Your task to perform on an android device: Go to wifi settings Image 0: 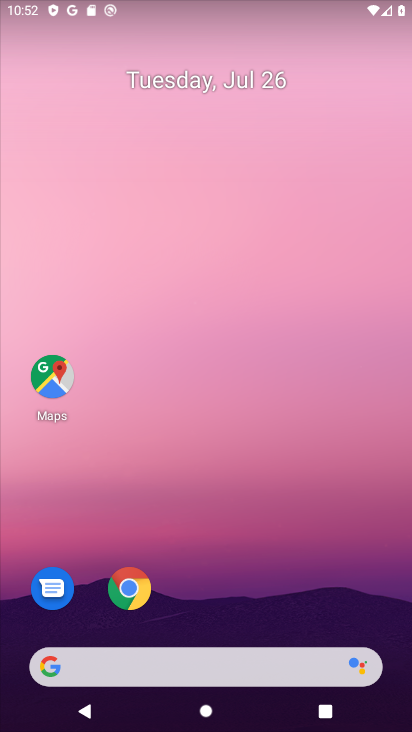
Step 0: press home button
Your task to perform on an android device: Go to wifi settings Image 1: 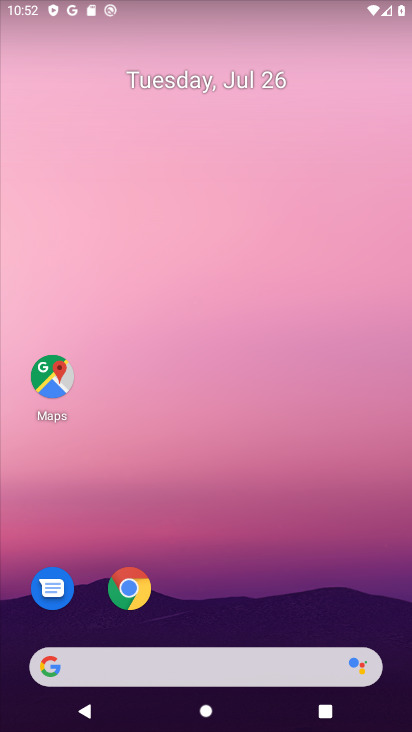
Step 1: drag from (218, 622) to (220, 25)
Your task to perform on an android device: Go to wifi settings Image 2: 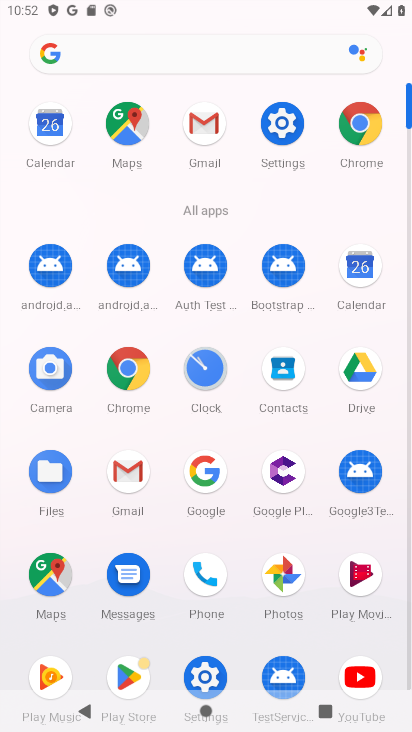
Step 2: click (279, 120)
Your task to perform on an android device: Go to wifi settings Image 3: 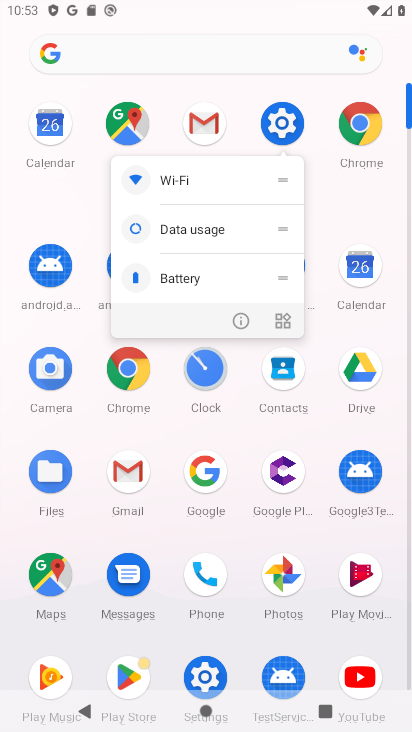
Step 3: click (280, 112)
Your task to perform on an android device: Go to wifi settings Image 4: 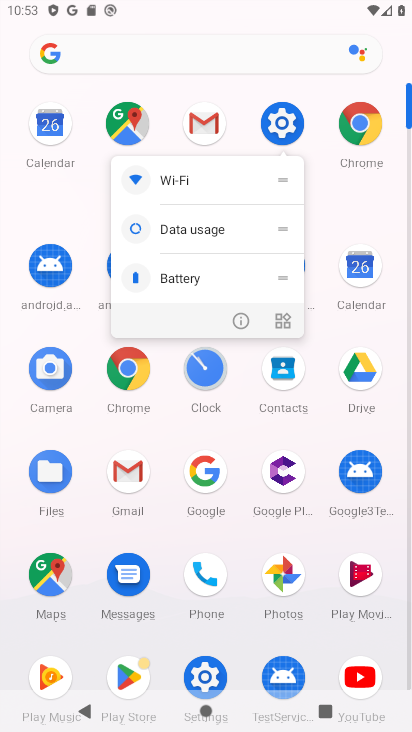
Step 4: click (286, 120)
Your task to perform on an android device: Go to wifi settings Image 5: 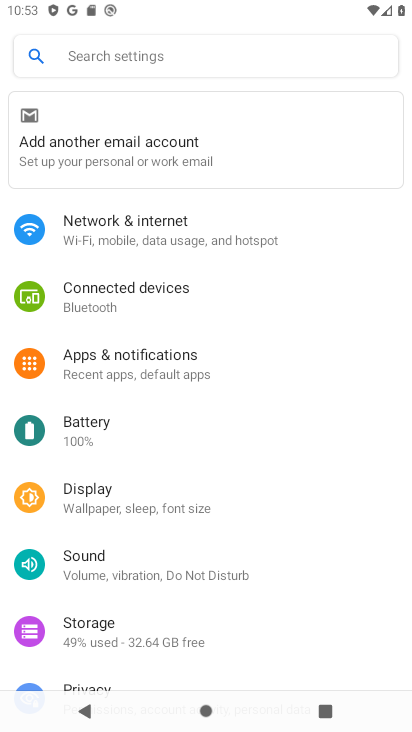
Step 5: click (163, 236)
Your task to perform on an android device: Go to wifi settings Image 6: 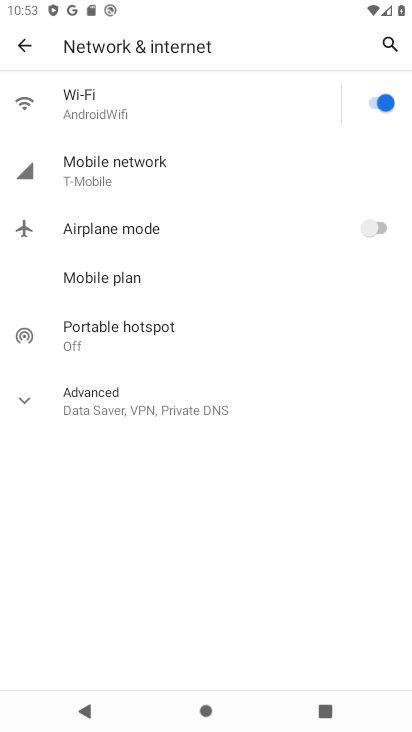
Step 6: click (123, 99)
Your task to perform on an android device: Go to wifi settings Image 7: 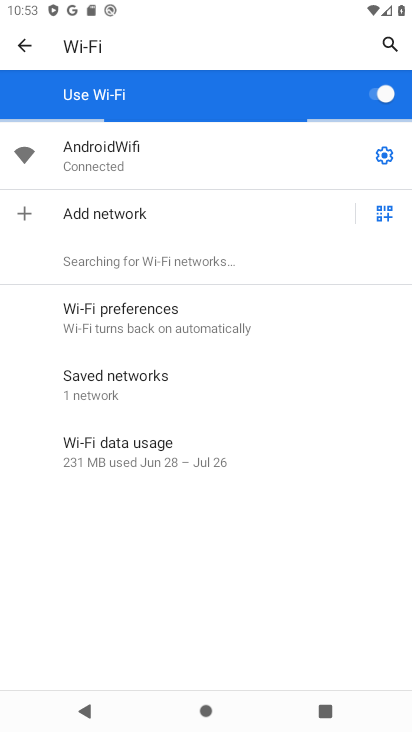
Step 7: task complete